Your task to perform on an android device: Go to Google maps Image 0: 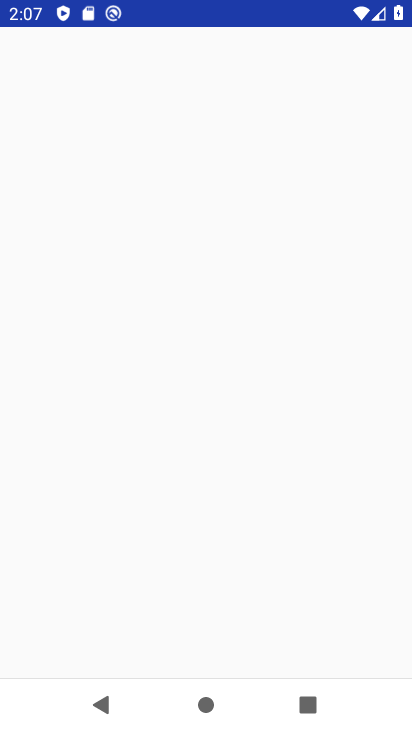
Step 0: drag from (215, 568) to (202, 282)
Your task to perform on an android device: Go to Google maps Image 1: 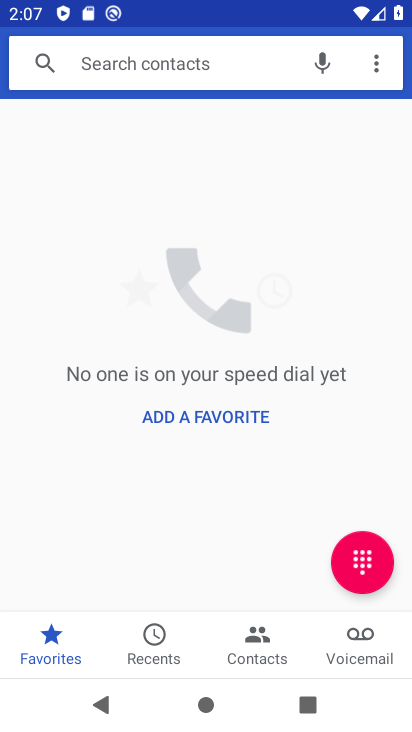
Step 1: press home button
Your task to perform on an android device: Go to Google maps Image 2: 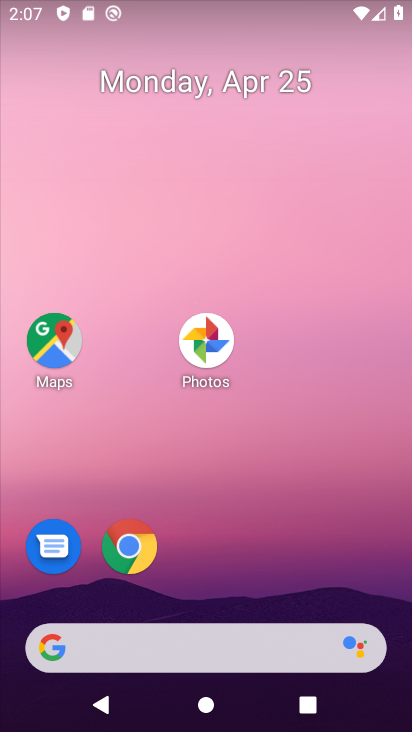
Step 2: click (60, 330)
Your task to perform on an android device: Go to Google maps Image 3: 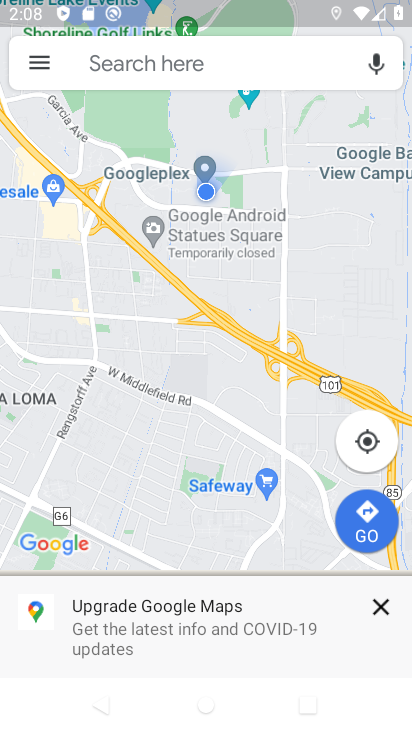
Step 3: task complete